Your task to perform on an android device: Do I have any events tomorrow? Image 0: 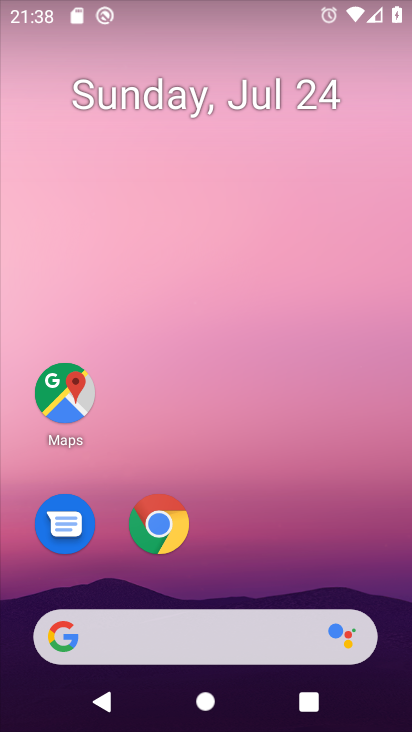
Step 0: drag from (266, 535) to (253, 43)
Your task to perform on an android device: Do I have any events tomorrow? Image 1: 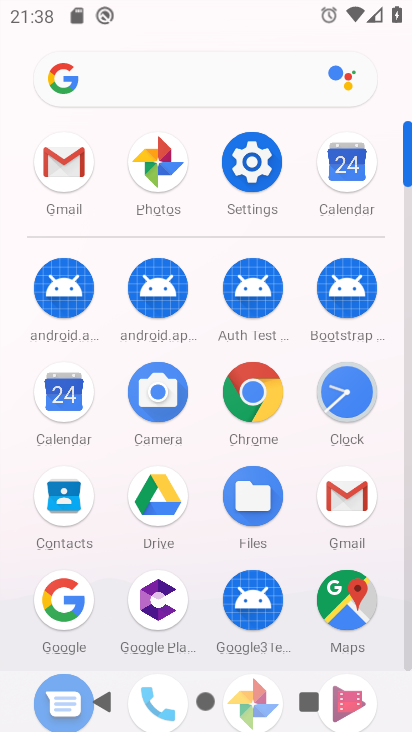
Step 1: click (339, 161)
Your task to perform on an android device: Do I have any events tomorrow? Image 2: 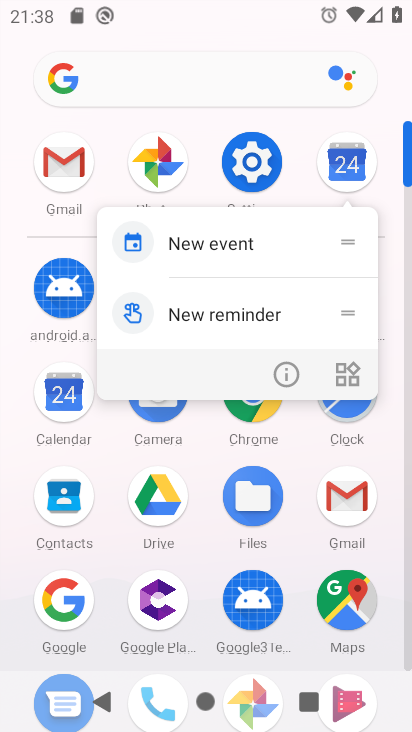
Step 2: click (339, 161)
Your task to perform on an android device: Do I have any events tomorrow? Image 3: 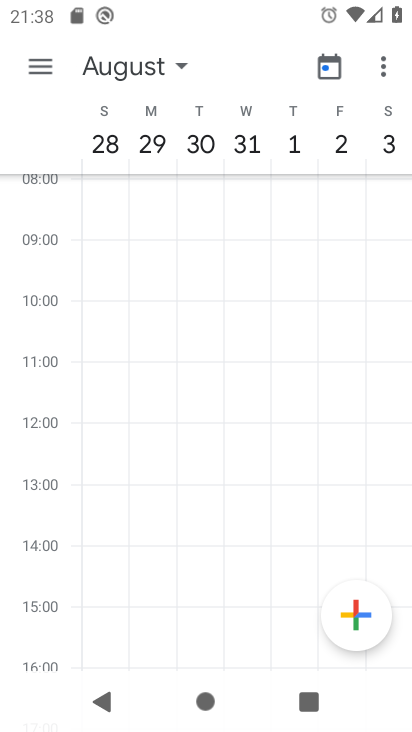
Step 3: task complete